Your task to perform on an android device: turn on showing notifications on the lock screen Image 0: 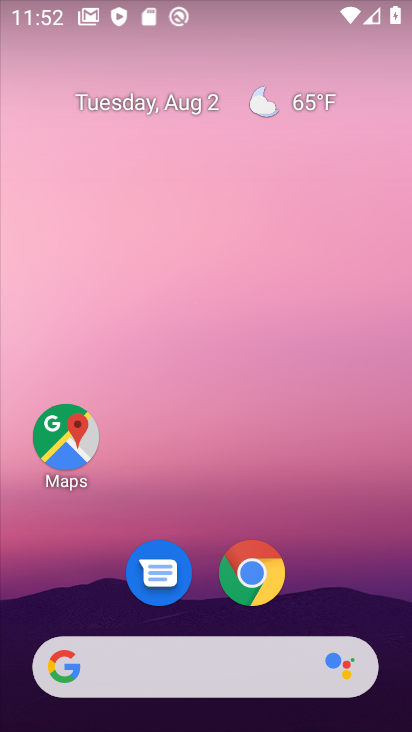
Step 0: drag from (215, 555) to (225, 195)
Your task to perform on an android device: turn on showing notifications on the lock screen Image 1: 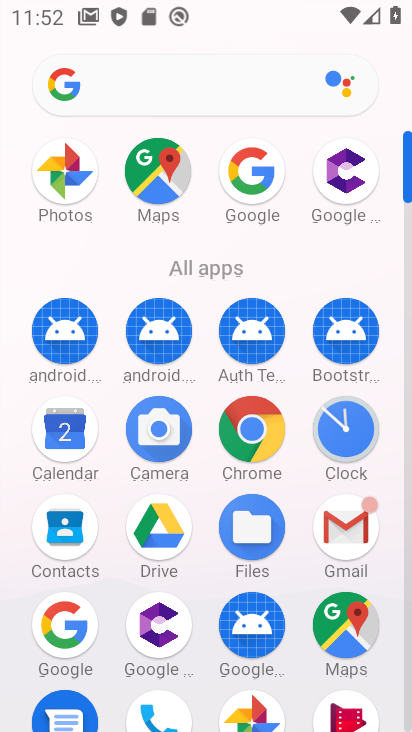
Step 1: click (218, 229)
Your task to perform on an android device: turn on showing notifications on the lock screen Image 2: 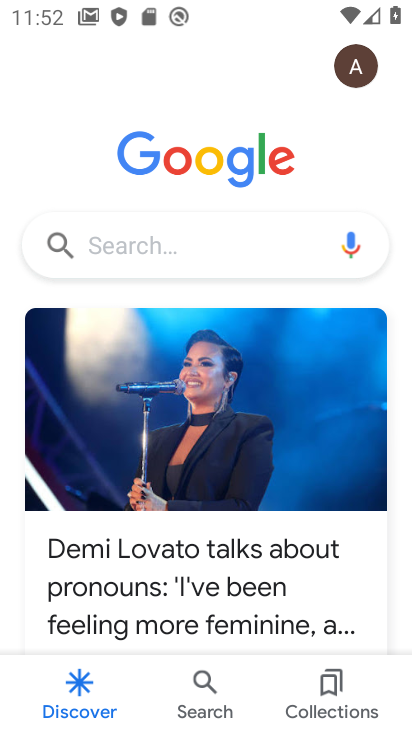
Step 2: press home button
Your task to perform on an android device: turn on showing notifications on the lock screen Image 3: 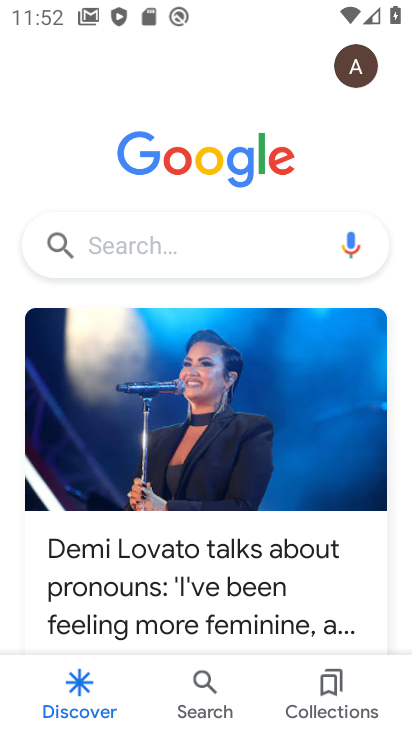
Step 3: press home button
Your task to perform on an android device: turn on showing notifications on the lock screen Image 4: 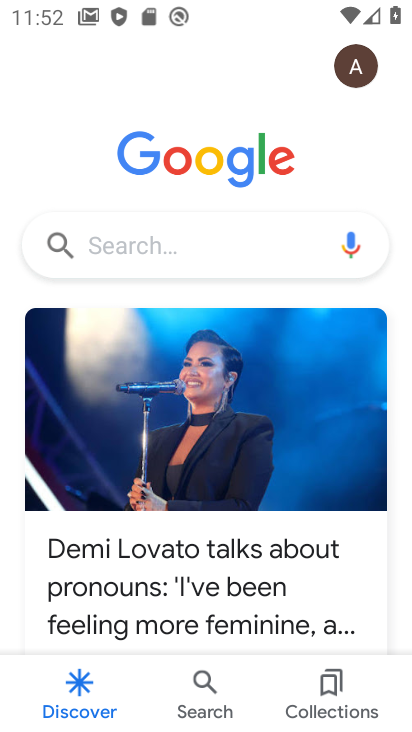
Step 4: drag from (209, 511) to (252, 96)
Your task to perform on an android device: turn on showing notifications on the lock screen Image 5: 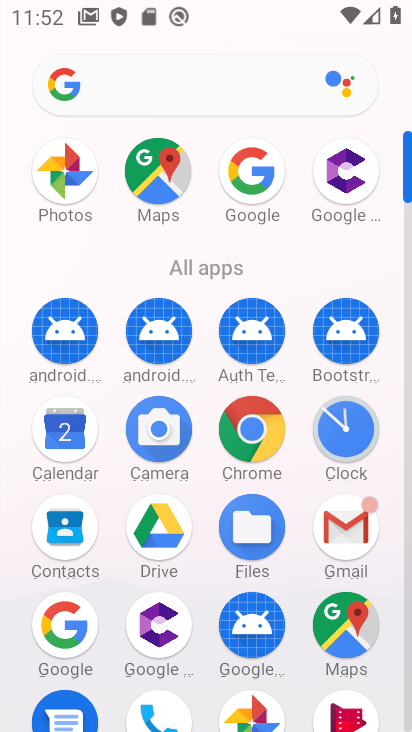
Step 5: drag from (206, 646) to (262, 135)
Your task to perform on an android device: turn on showing notifications on the lock screen Image 6: 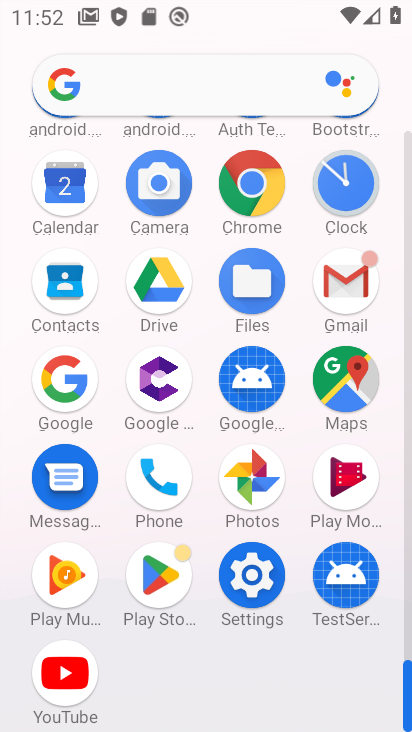
Step 6: click (261, 572)
Your task to perform on an android device: turn on showing notifications on the lock screen Image 7: 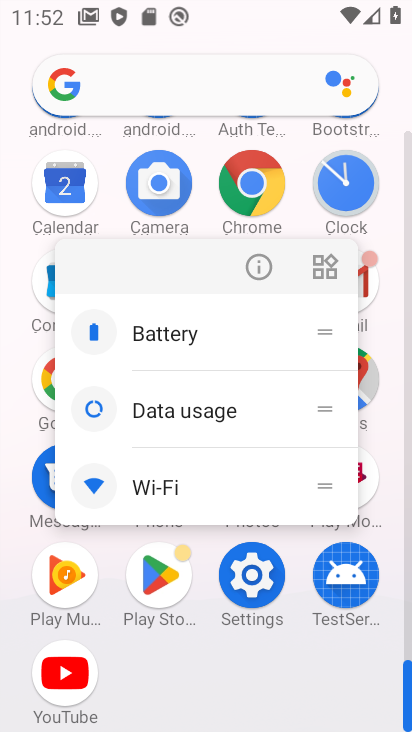
Step 7: click (259, 268)
Your task to perform on an android device: turn on showing notifications on the lock screen Image 8: 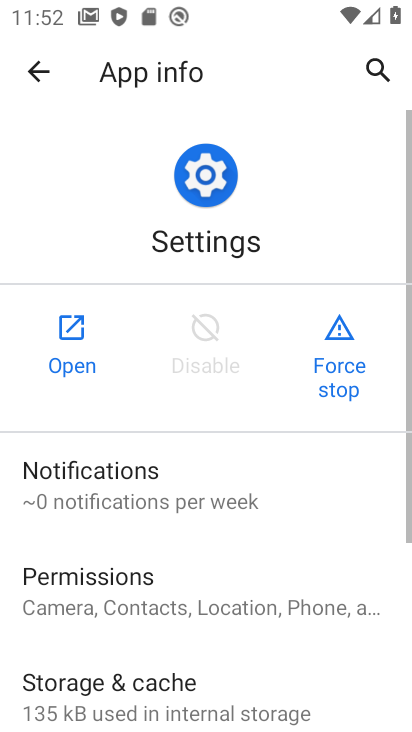
Step 8: click (58, 321)
Your task to perform on an android device: turn on showing notifications on the lock screen Image 9: 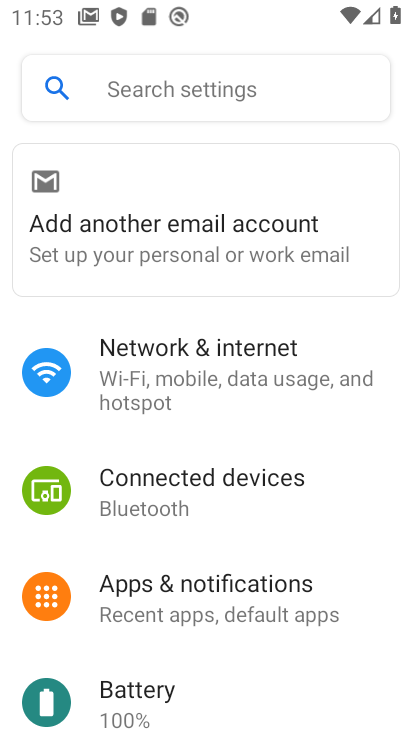
Step 9: drag from (197, 579) to (228, 241)
Your task to perform on an android device: turn on showing notifications on the lock screen Image 10: 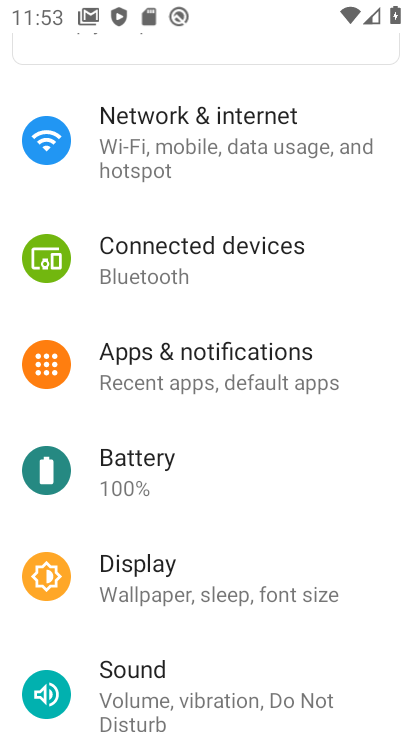
Step 10: click (200, 375)
Your task to perform on an android device: turn on showing notifications on the lock screen Image 11: 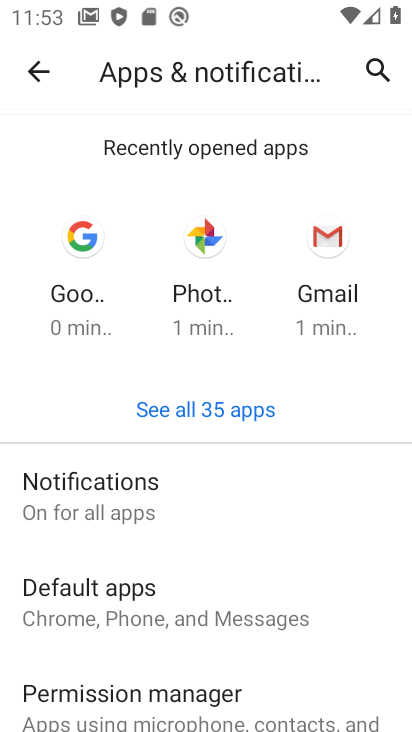
Step 11: drag from (109, 529) to (222, 180)
Your task to perform on an android device: turn on showing notifications on the lock screen Image 12: 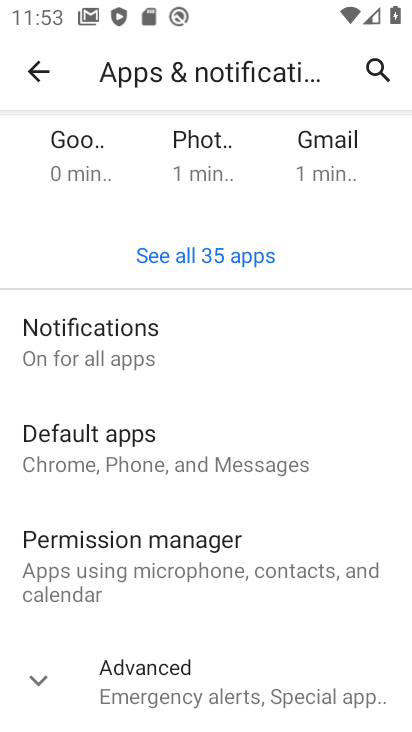
Step 12: click (159, 340)
Your task to perform on an android device: turn on showing notifications on the lock screen Image 13: 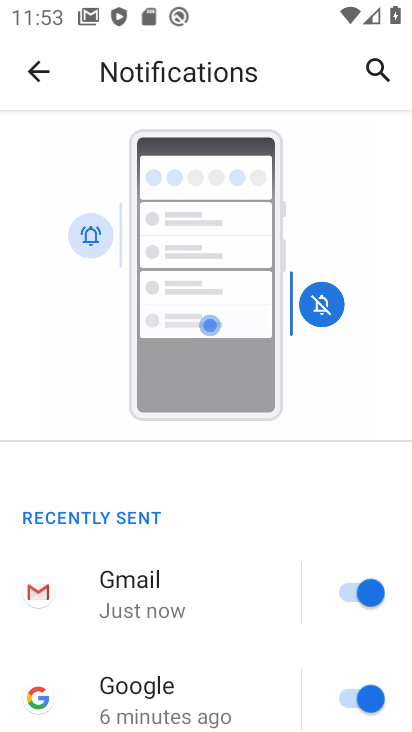
Step 13: drag from (236, 571) to (290, 170)
Your task to perform on an android device: turn on showing notifications on the lock screen Image 14: 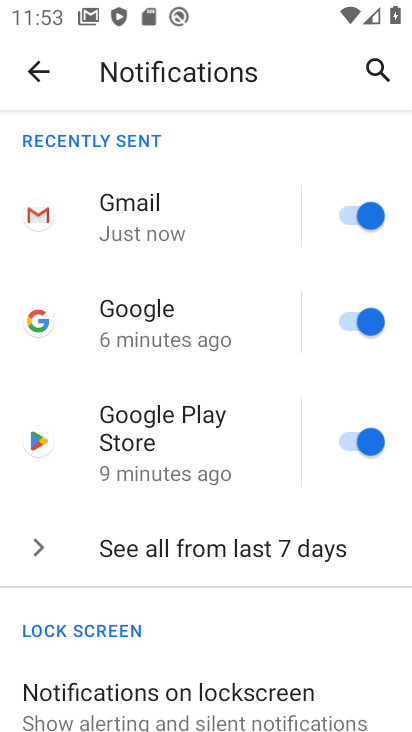
Step 14: click (186, 695)
Your task to perform on an android device: turn on showing notifications on the lock screen Image 15: 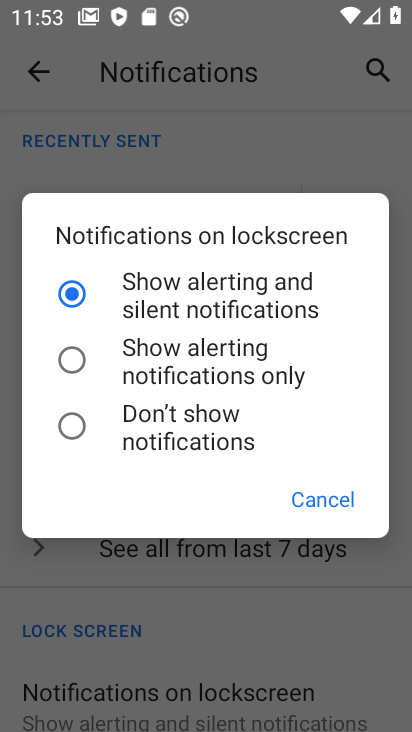
Step 15: task complete